Your task to perform on an android device: turn on translation in the chrome app Image 0: 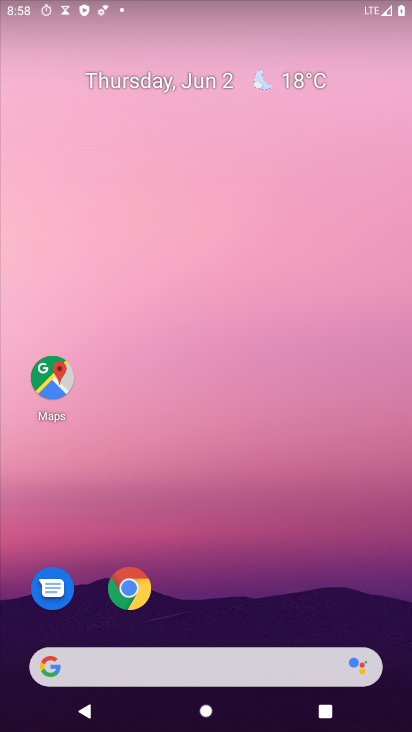
Step 0: click (121, 590)
Your task to perform on an android device: turn on translation in the chrome app Image 1: 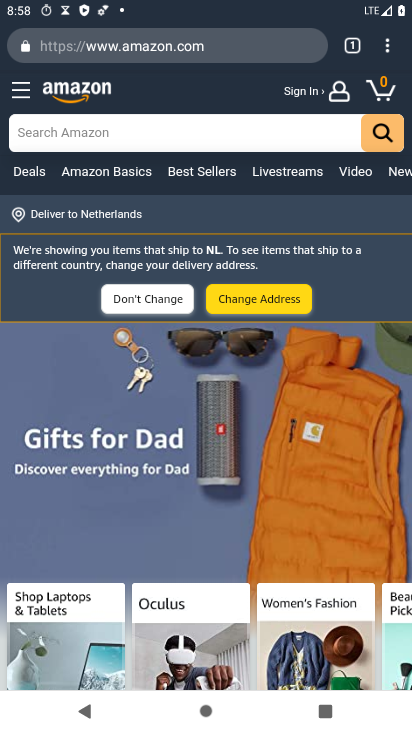
Step 1: drag from (381, 41) to (239, 504)
Your task to perform on an android device: turn on translation in the chrome app Image 2: 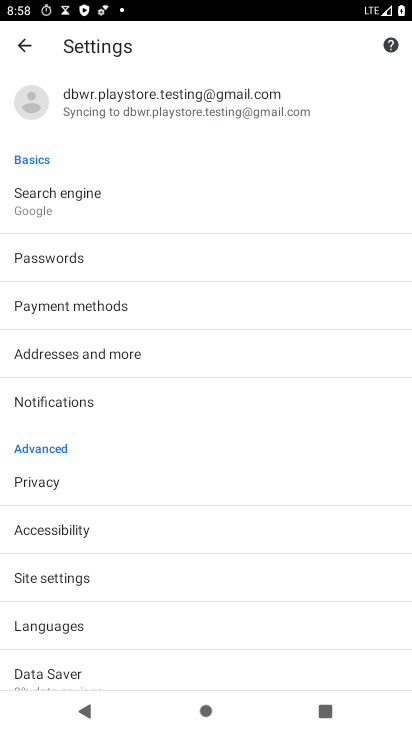
Step 2: click (90, 629)
Your task to perform on an android device: turn on translation in the chrome app Image 3: 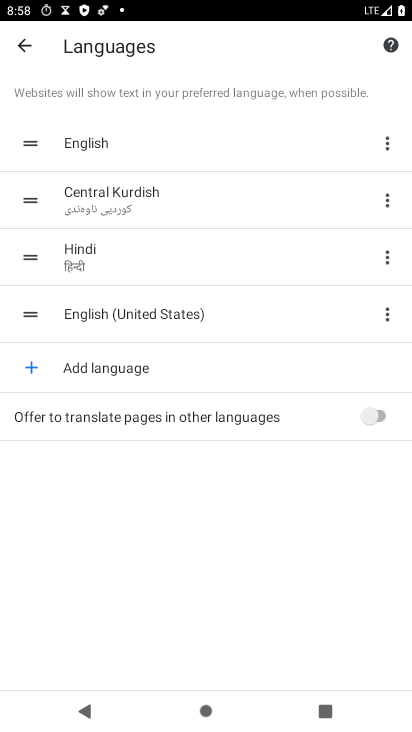
Step 3: click (376, 411)
Your task to perform on an android device: turn on translation in the chrome app Image 4: 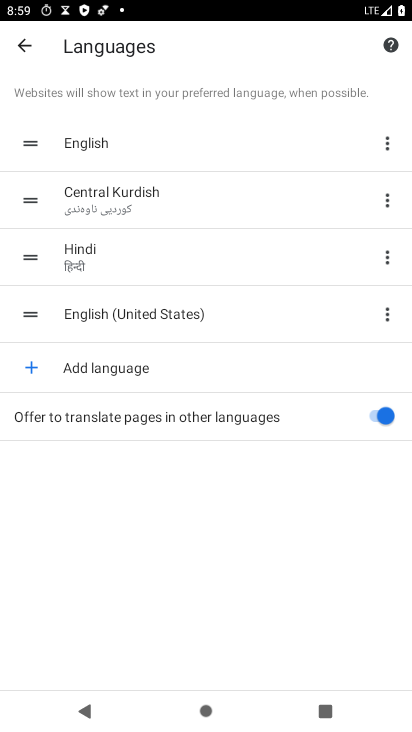
Step 4: task complete